Your task to perform on an android device: toggle translation in the chrome app Image 0: 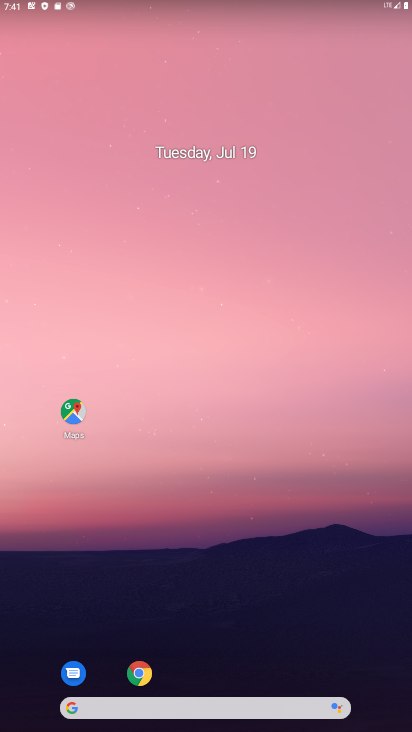
Step 0: drag from (358, 683) to (236, 11)
Your task to perform on an android device: toggle translation in the chrome app Image 1: 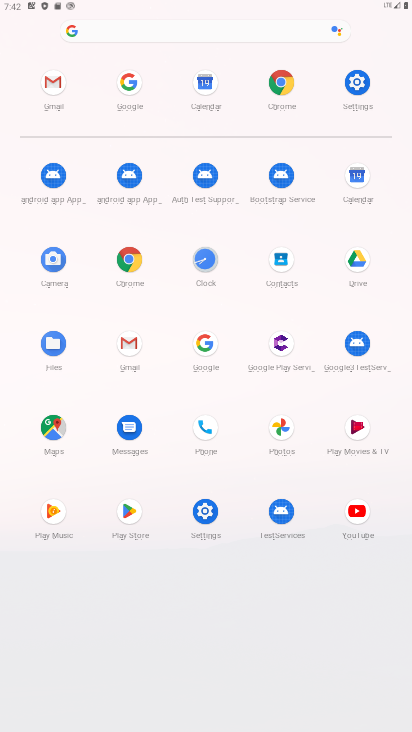
Step 1: click (126, 272)
Your task to perform on an android device: toggle translation in the chrome app Image 2: 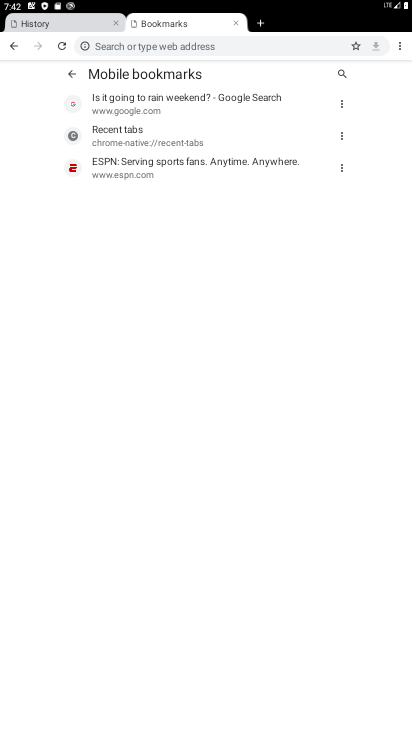
Step 2: click (395, 43)
Your task to perform on an android device: toggle translation in the chrome app Image 3: 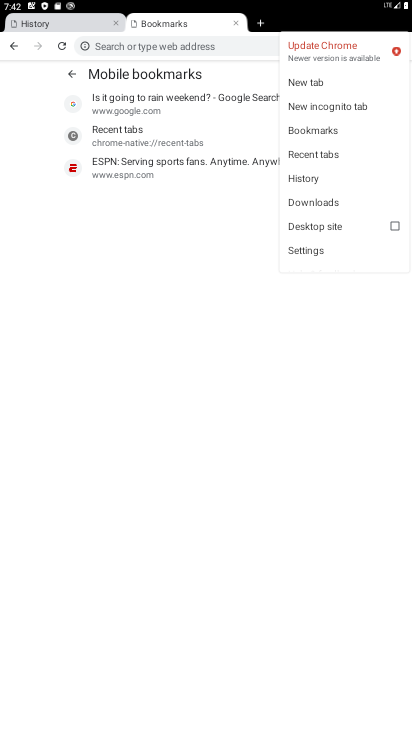
Step 3: click (308, 250)
Your task to perform on an android device: toggle translation in the chrome app Image 4: 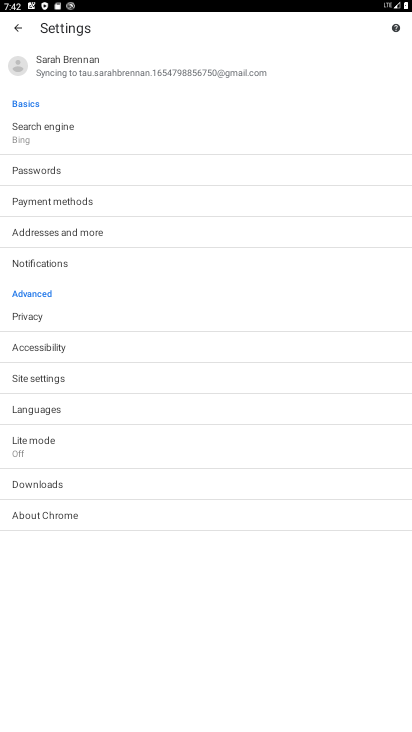
Step 4: click (66, 411)
Your task to perform on an android device: toggle translation in the chrome app Image 5: 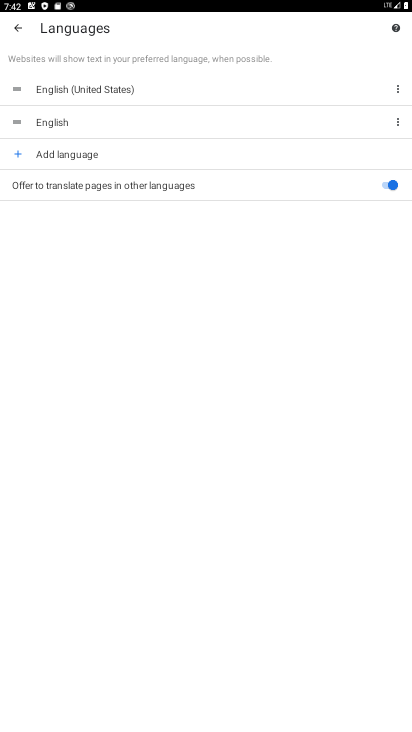
Step 5: click (372, 184)
Your task to perform on an android device: toggle translation in the chrome app Image 6: 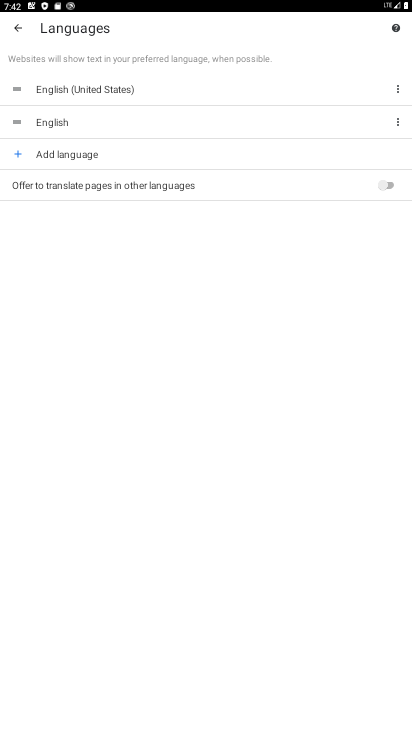
Step 6: task complete